Your task to perform on an android device: Open display settings Image 0: 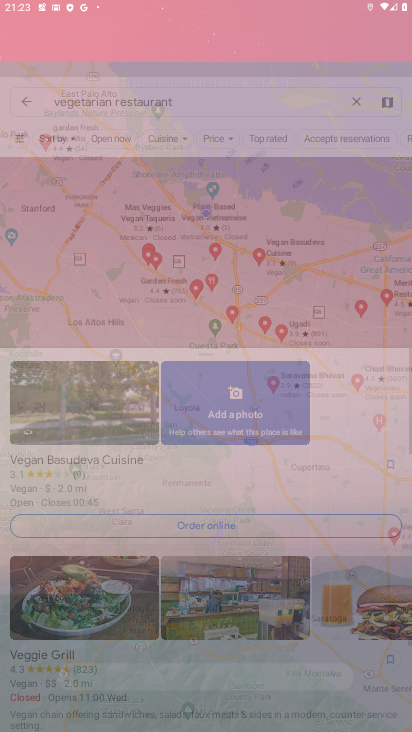
Step 0: press home button
Your task to perform on an android device: Open display settings Image 1: 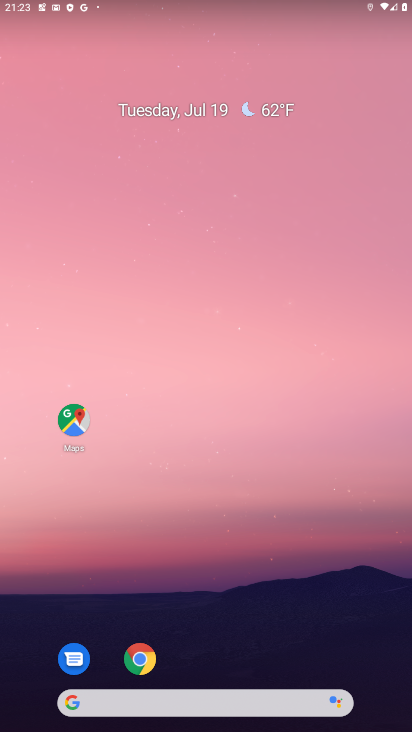
Step 1: drag from (257, 658) to (261, 51)
Your task to perform on an android device: Open display settings Image 2: 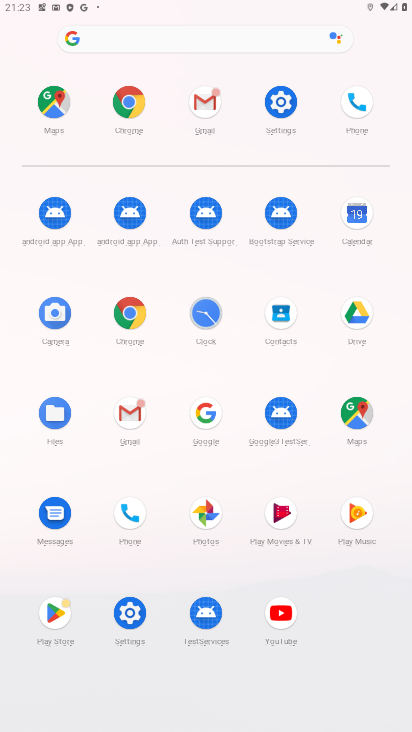
Step 2: click (118, 611)
Your task to perform on an android device: Open display settings Image 3: 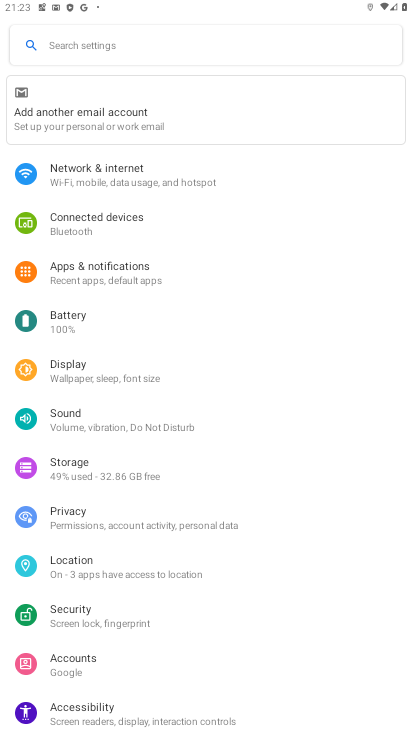
Step 3: click (103, 362)
Your task to perform on an android device: Open display settings Image 4: 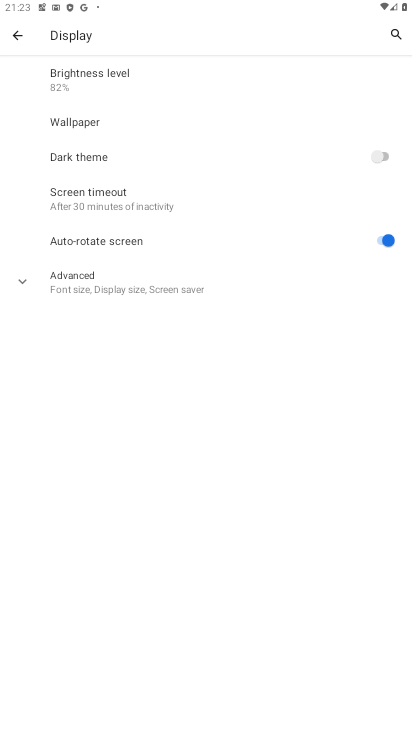
Step 4: task complete